Your task to perform on an android device: allow notifications from all sites in the chrome app Image 0: 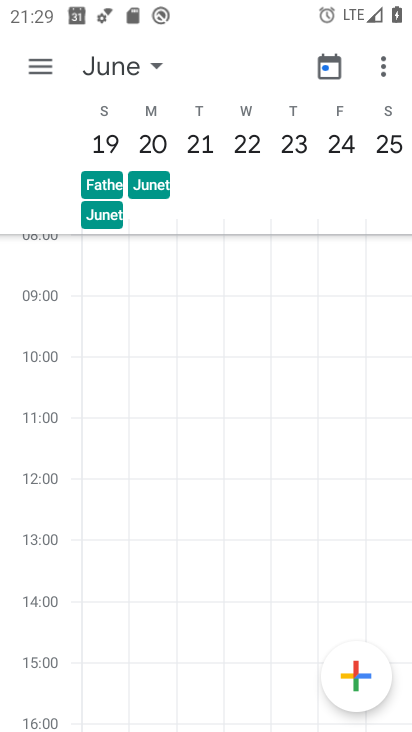
Step 0: press home button
Your task to perform on an android device: allow notifications from all sites in the chrome app Image 1: 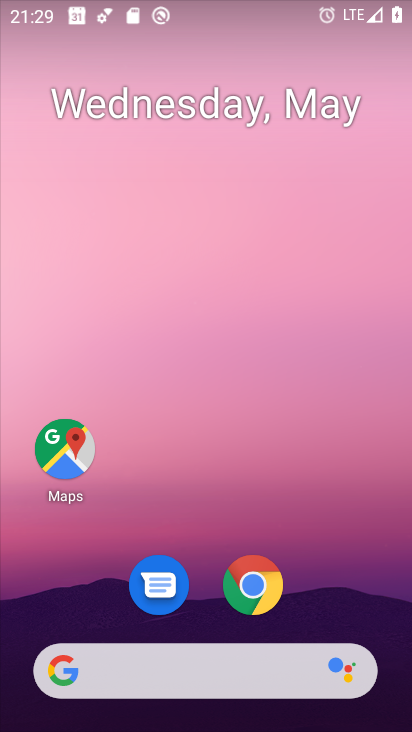
Step 1: click (260, 587)
Your task to perform on an android device: allow notifications from all sites in the chrome app Image 2: 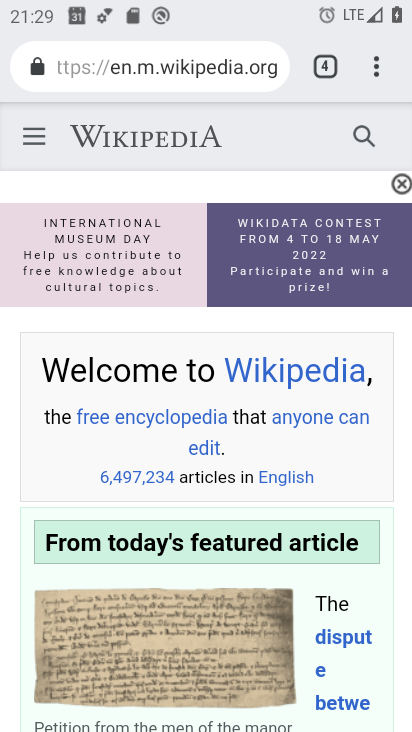
Step 2: click (377, 68)
Your task to perform on an android device: allow notifications from all sites in the chrome app Image 3: 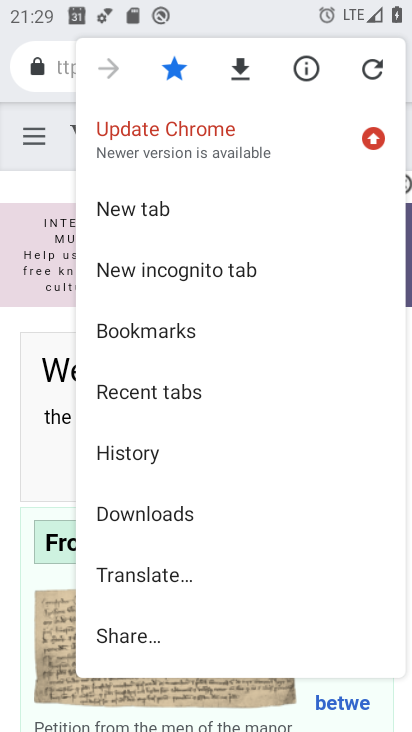
Step 3: drag from (288, 503) to (294, 178)
Your task to perform on an android device: allow notifications from all sites in the chrome app Image 4: 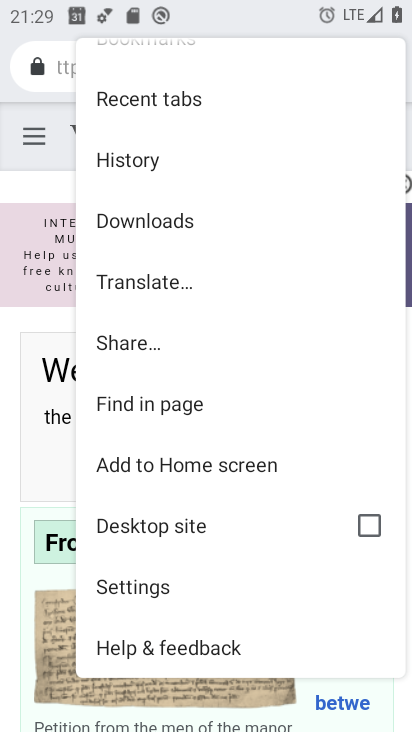
Step 4: click (193, 581)
Your task to perform on an android device: allow notifications from all sites in the chrome app Image 5: 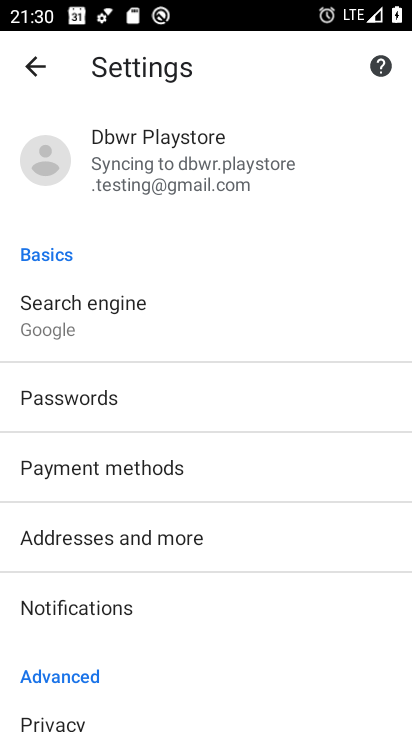
Step 5: click (191, 590)
Your task to perform on an android device: allow notifications from all sites in the chrome app Image 6: 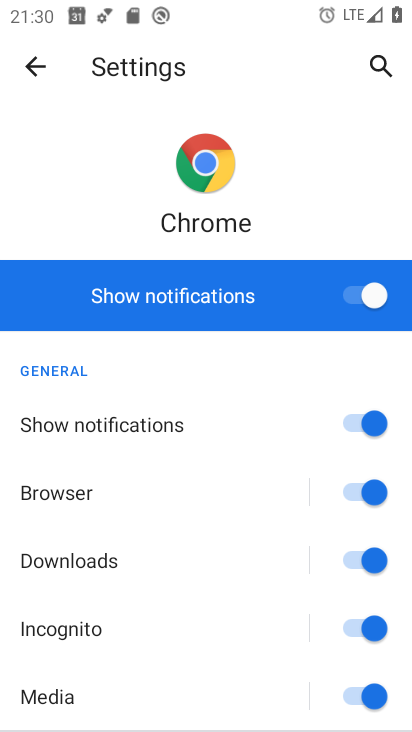
Step 6: task complete